Your task to perform on an android device: Open wifi settings Image 0: 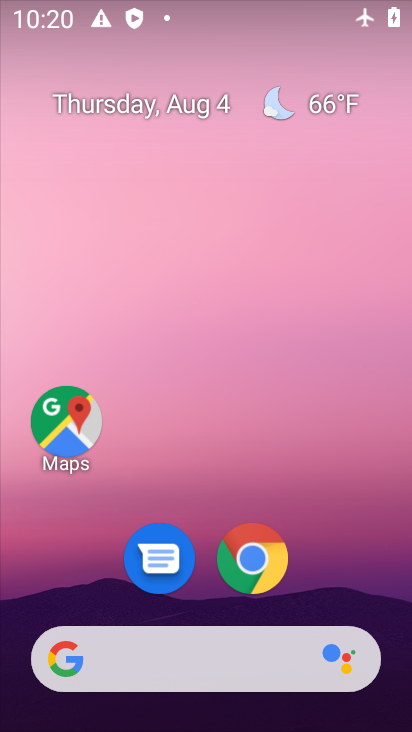
Step 0: drag from (383, 592) to (335, 161)
Your task to perform on an android device: Open wifi settings Image 1: 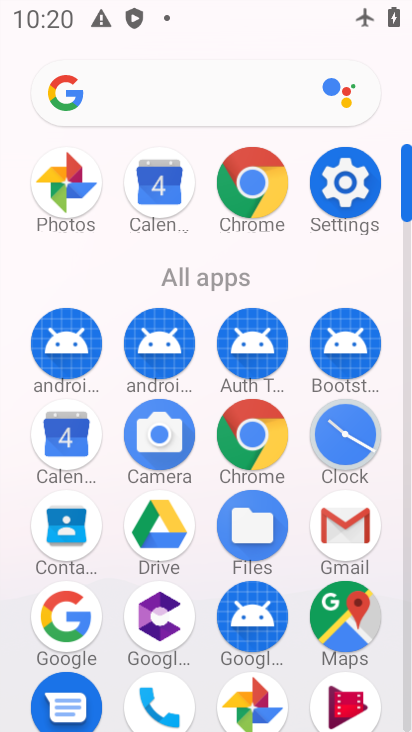
Step 1: click (336, 179)
Your task to perform on an android device: Open wifi settings Image 2: 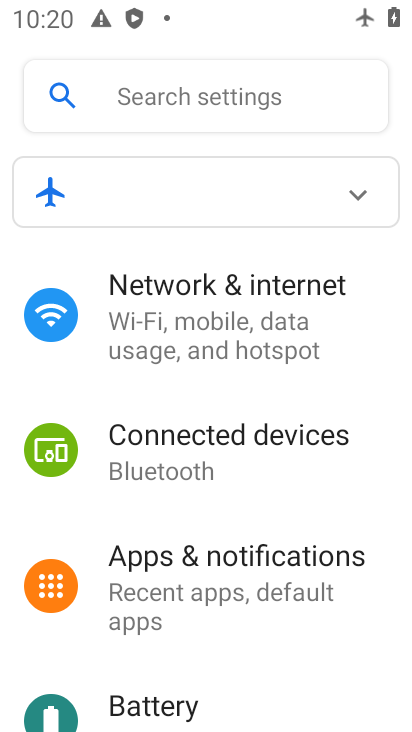
Step 2: click (213, 347)
Your task to perform on an android device: Open wifi settings Image 3: 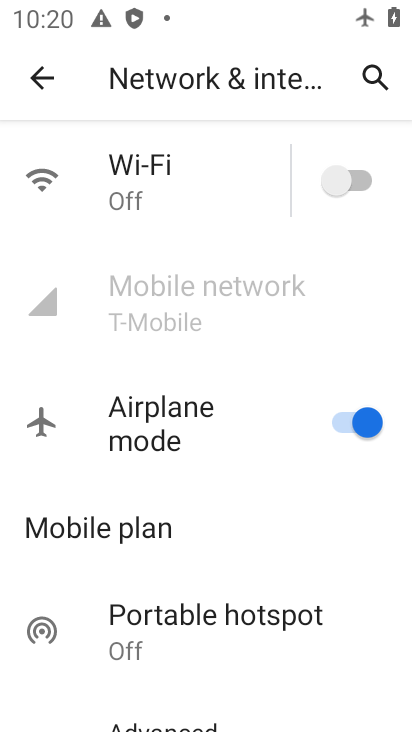
Step 3: click (259, 164)
Your task to perform on an android device: Open wifi settings Image 4: 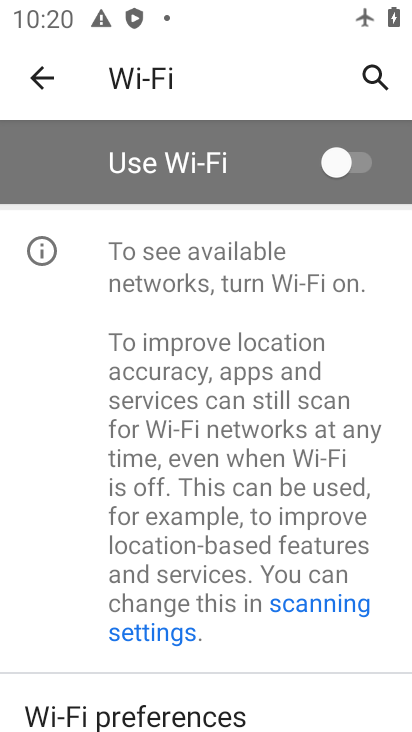
Step 4: click (318, 162)
Your task to perform on an android device: Open wifi settings Image 5: 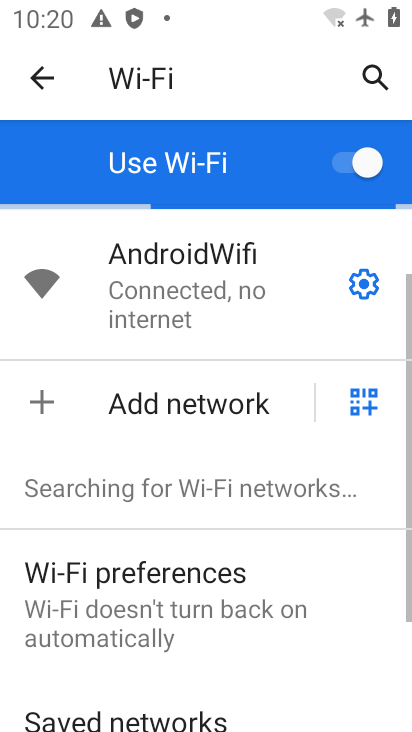
Step 5: click (360, 284)
Your task to perform on an android device: Open wifi settings Image 6: 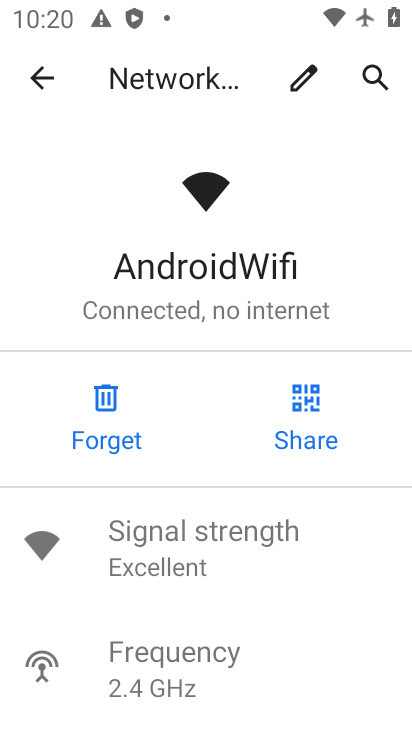
Step 6: task complete